Your task to perform on an android device: open app "Microsoft Authenticator" Image 0: 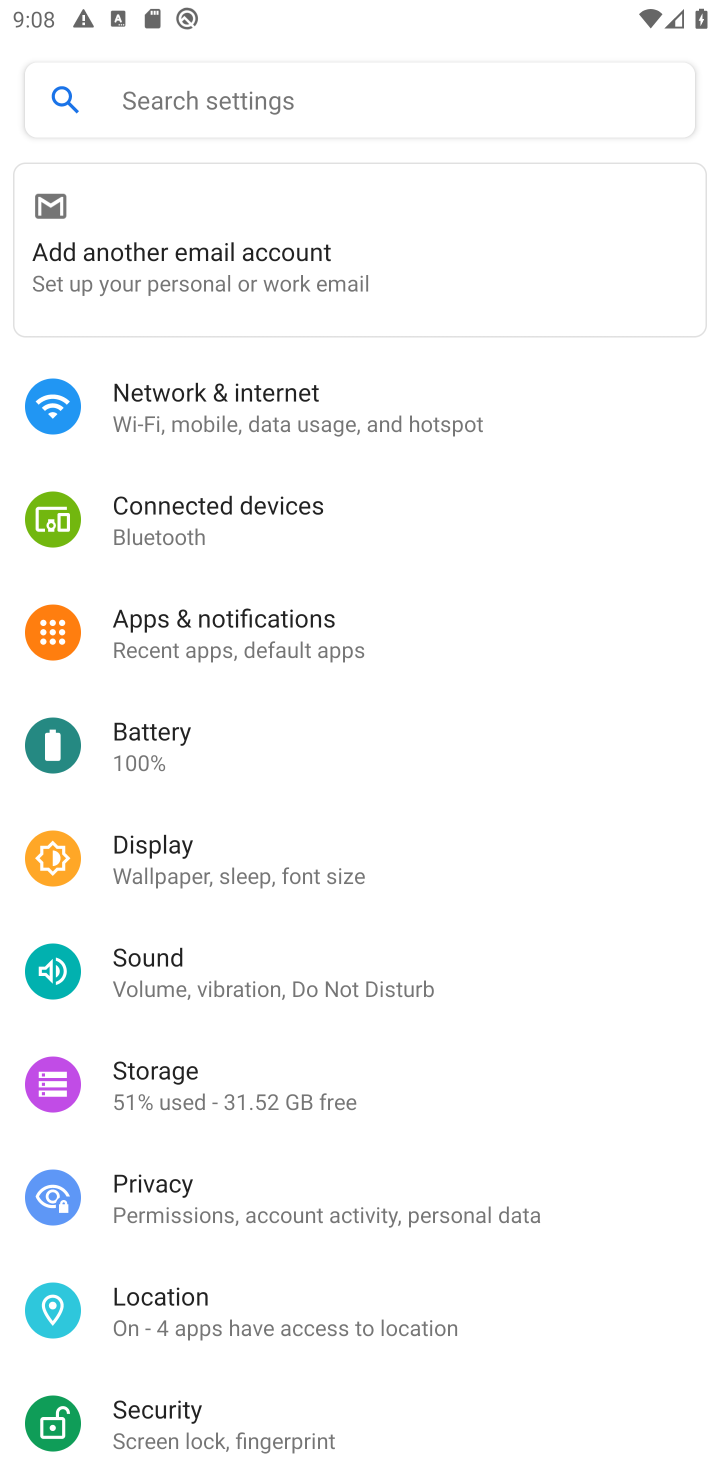
Step 0: press home button
Your task to perform on an android device: open app "Microsoft Authenticator" Image 1: 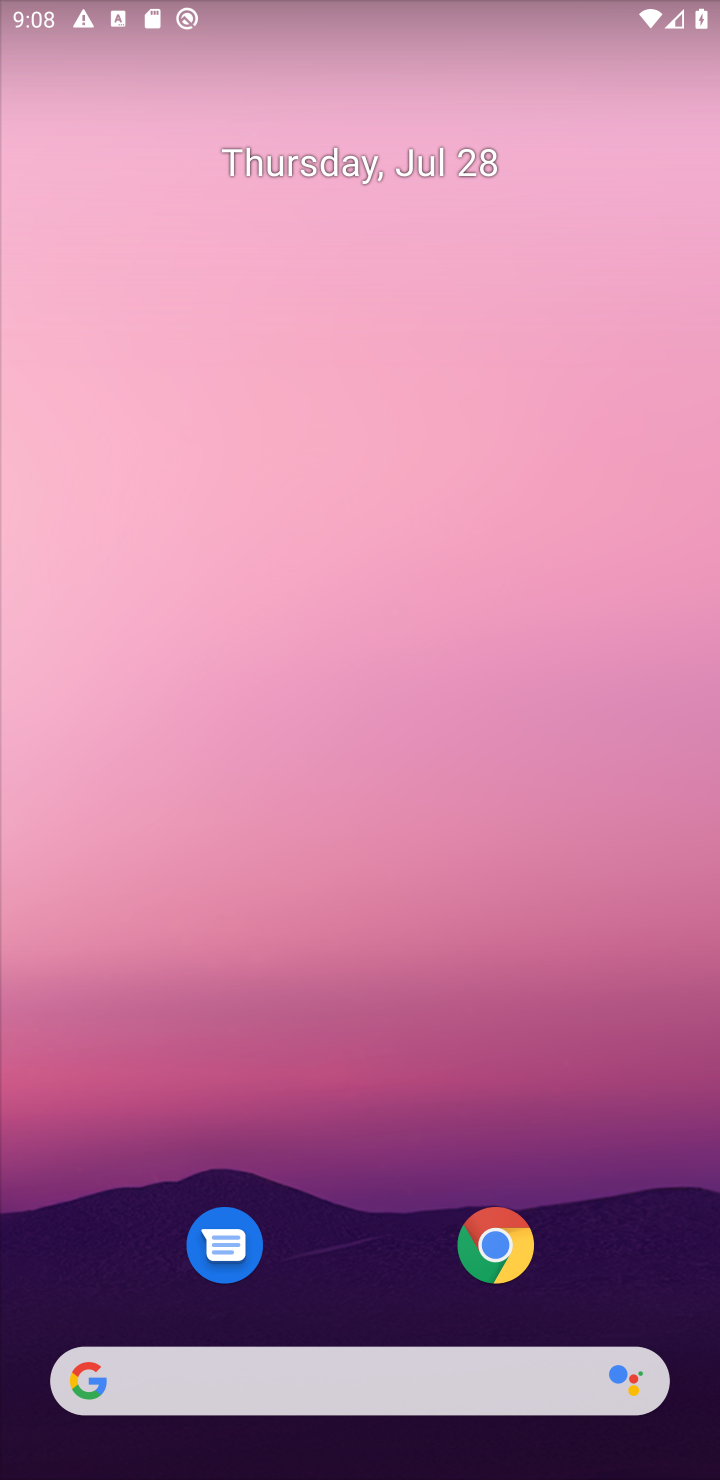
Step 1: drag from (374, 1161) to (366, 15)
Your task to perform on an android device: open app "Microsoft Authenticator" Image 2: 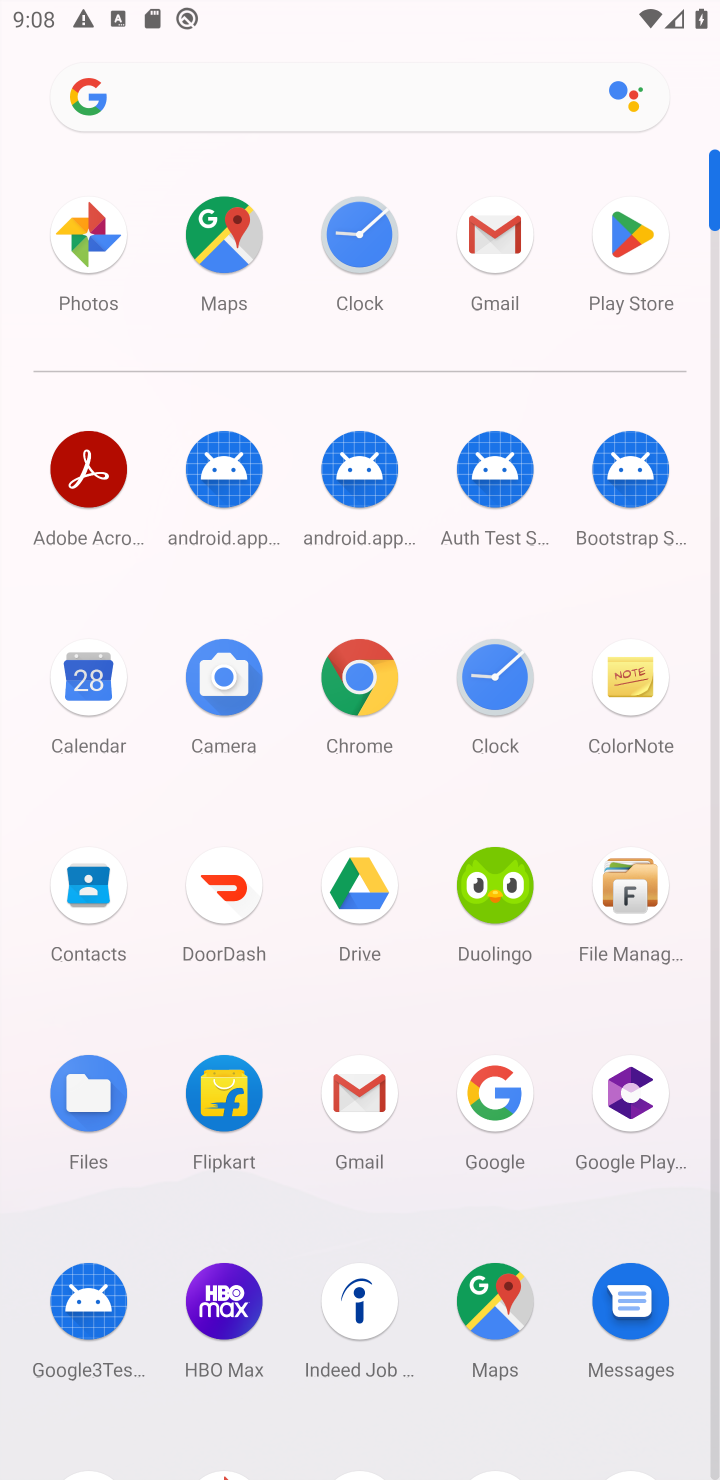
Step 2: click (635, 224)
Your task to perform on an android device: open app "Microsoft Authenticator" Image 3: 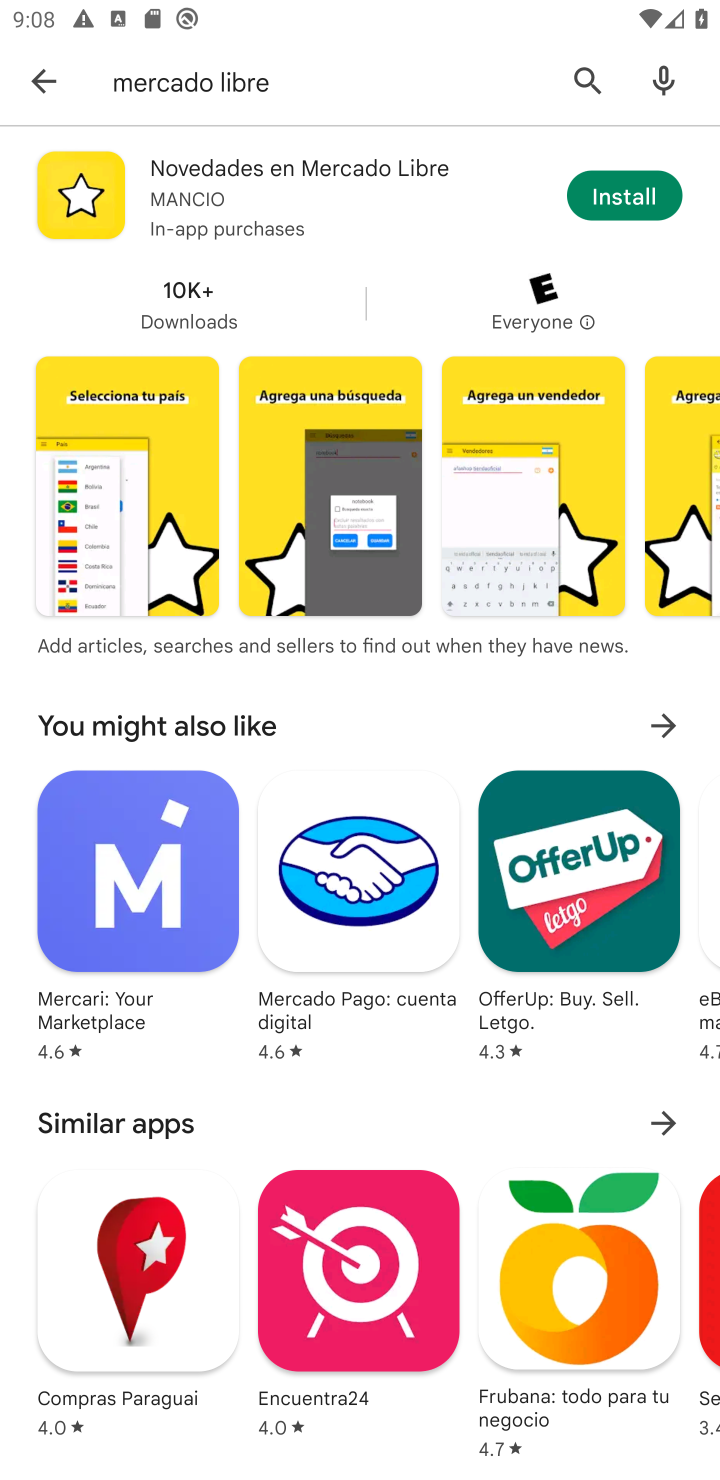
Step 3: click (572, 75)
Your task to perform on an android device: open app "Microsoft Authenticator" Image 4: 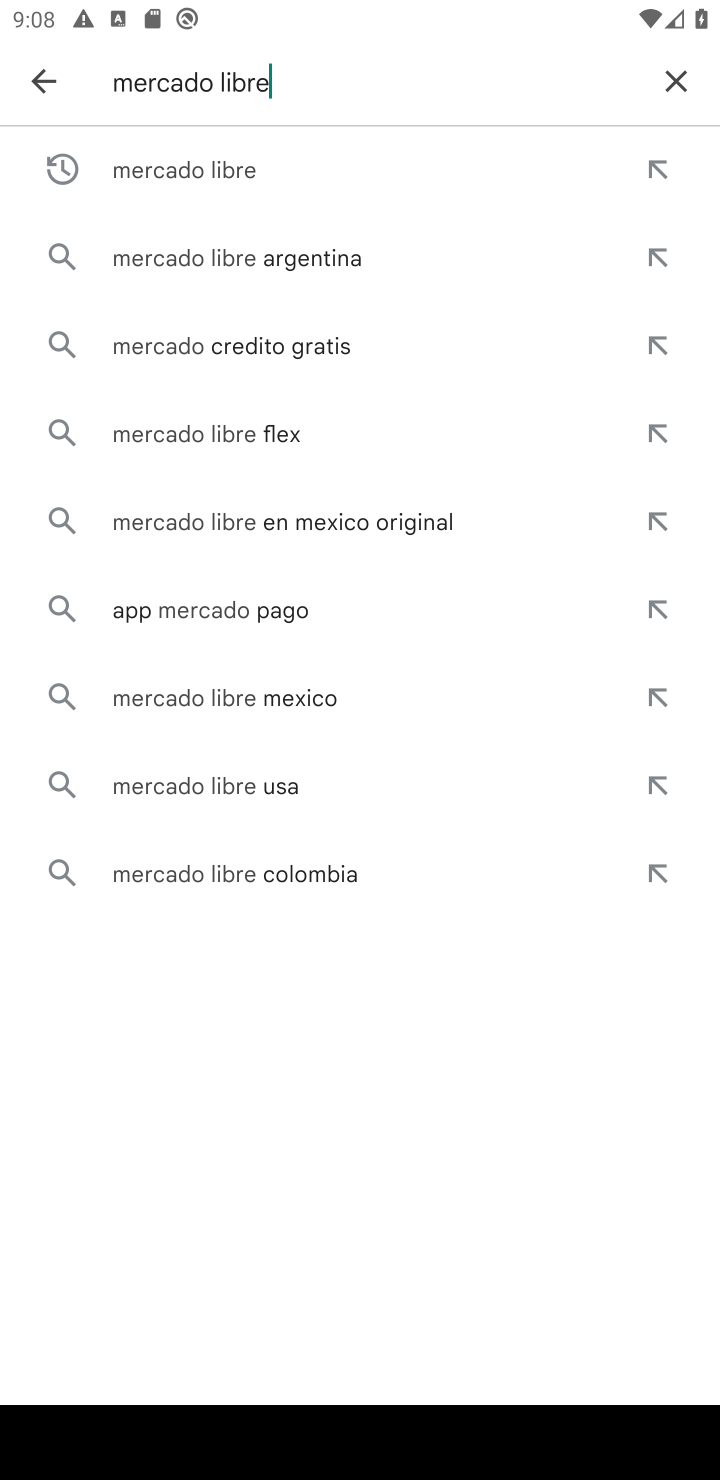
Step 4: click (682, 93)
Your task to perform on an android device: open app "Microsoft Authenticator" Image 5: 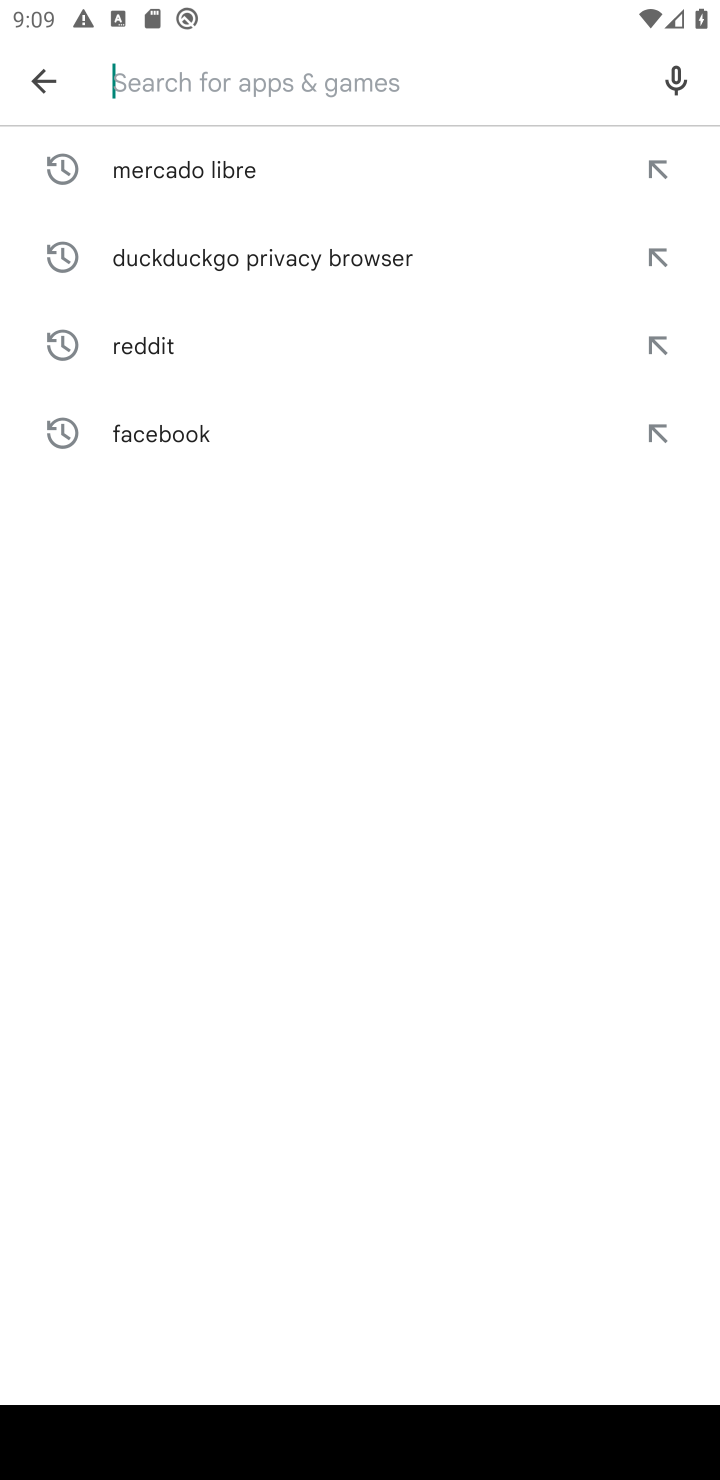
Step 5: type "Microsoft Authenticator"
Your task to perform on an android device: open app "Microsoft Authenticator" Image 6: 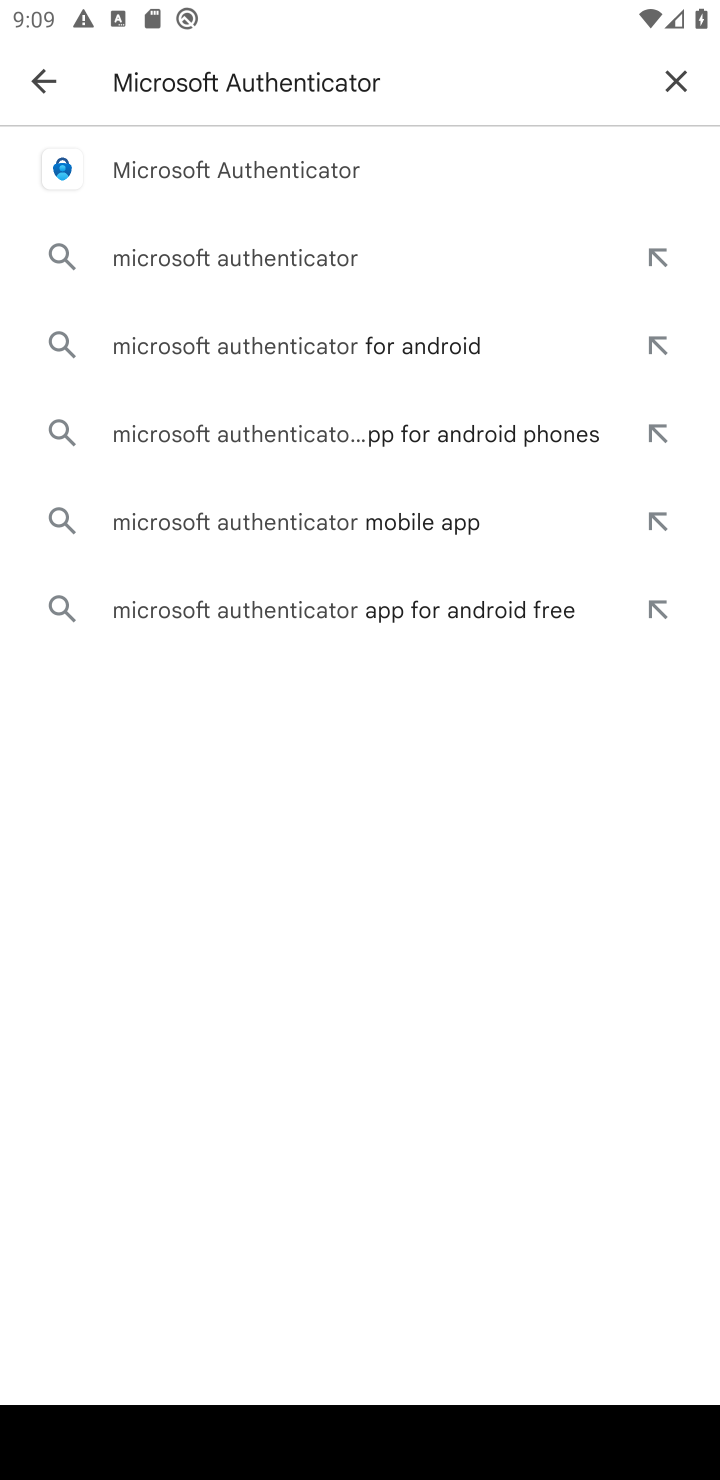
Step 6: click (83, 177)
Your task to perform on an android device: open app "Microsoft Authenticator" Image 7: 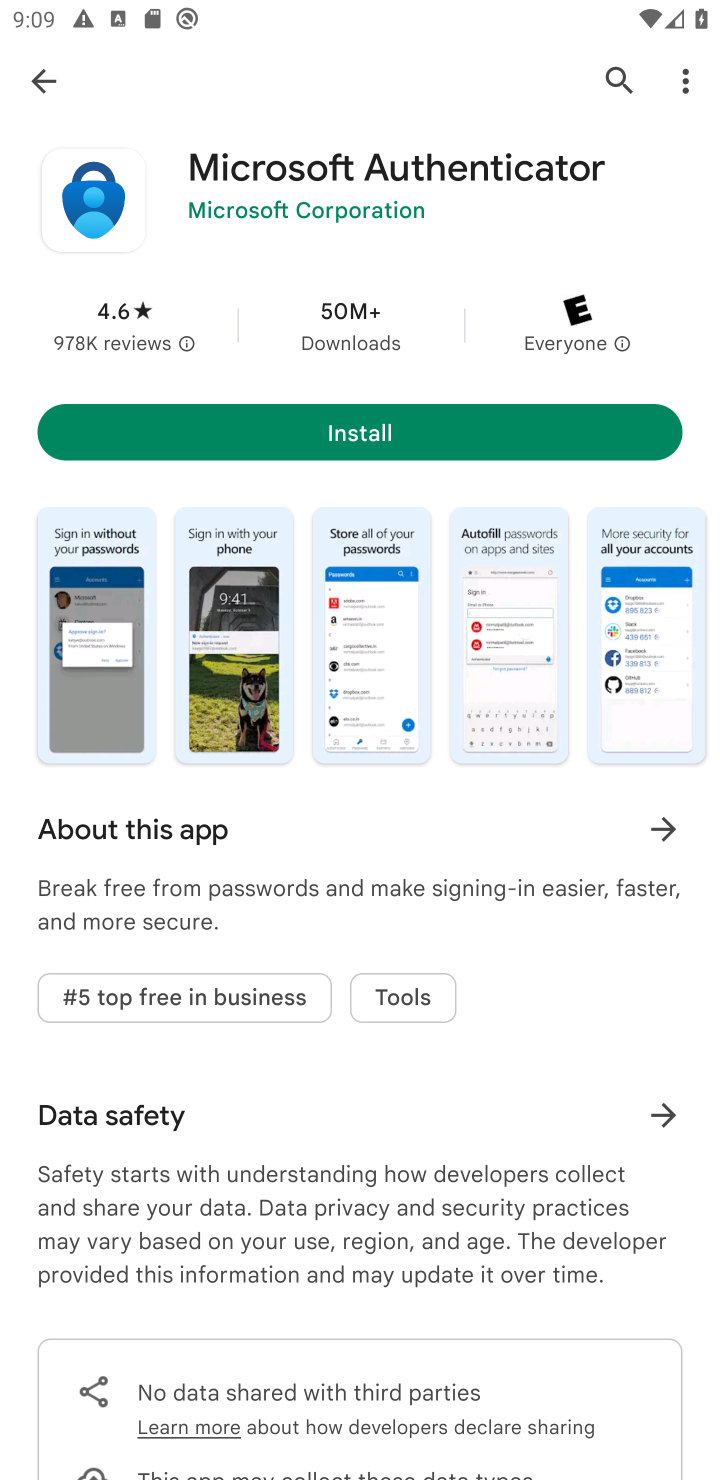
Step 7: task complete